Your task to perform on an android device: Open Youtube and go to the subscriptions tab Image 0: 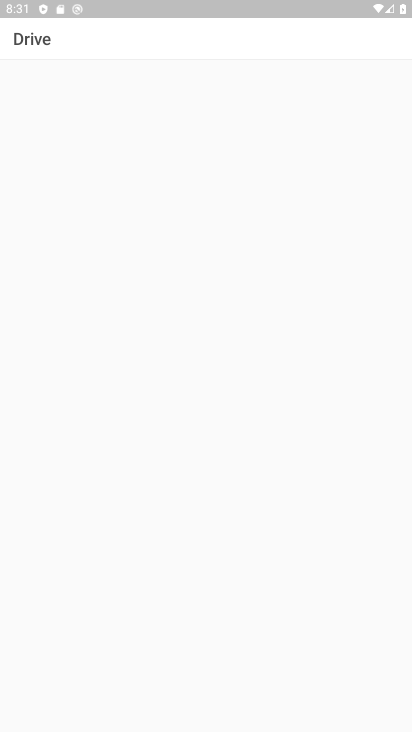
Step 0: press home button
Your task to perform on an android device: Open Youtube and go to the subscriptions tab Image 1: 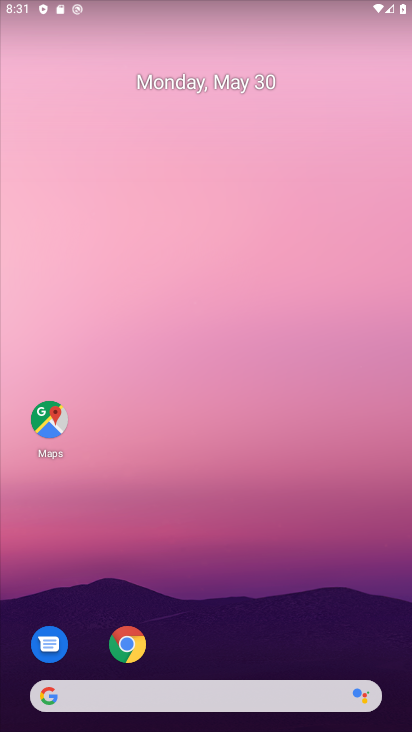
Step 1: drag from (386, 658) to (336, 85)
Your task to perform on an android device: Open Youtube and go to the subscriptions tab Image 2: 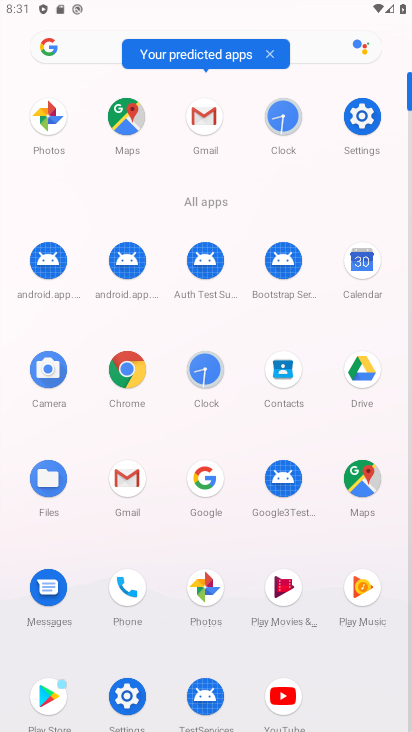
Step 2: click (282, 696)
Your task to perform on an android device: Open Youtube and go to the subscriptions tab Image 3: 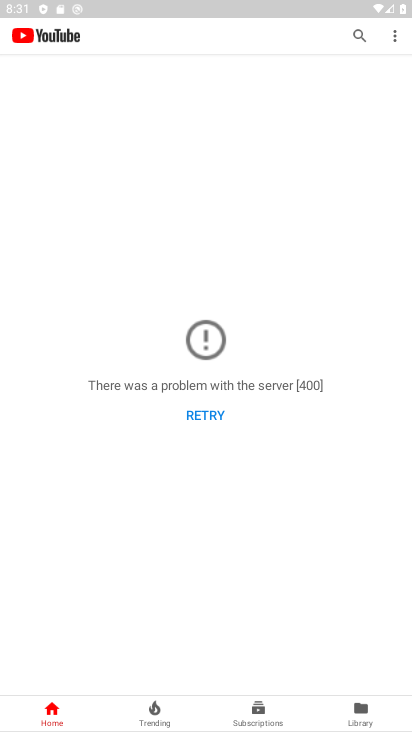
Step 3: click (269, 713)
Your task to perform on an android device: Open Youtube and go to the subscriptions tab Image 4: 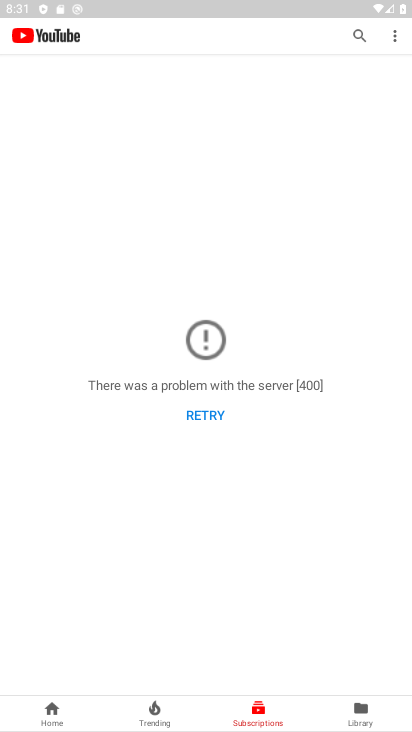
Step 4: click (210, 414)
Your task to perform on an android device: Open Youtube and go to the subscriptions tab Image 5: 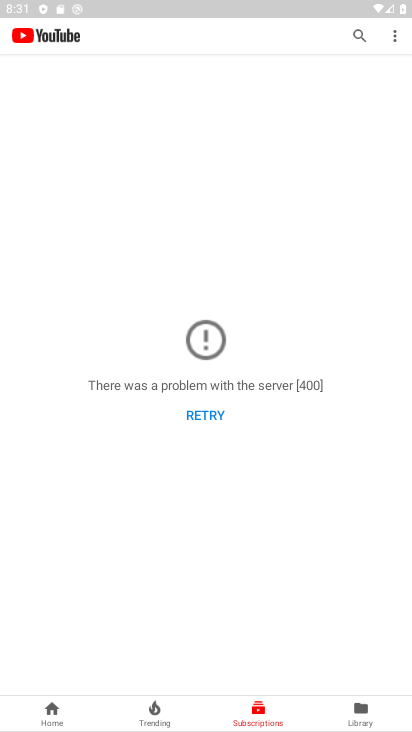
Step 5: click (210, 414)
Your task to perform on an android device: Open Youtube and go to the subscriptions tab Image 6: 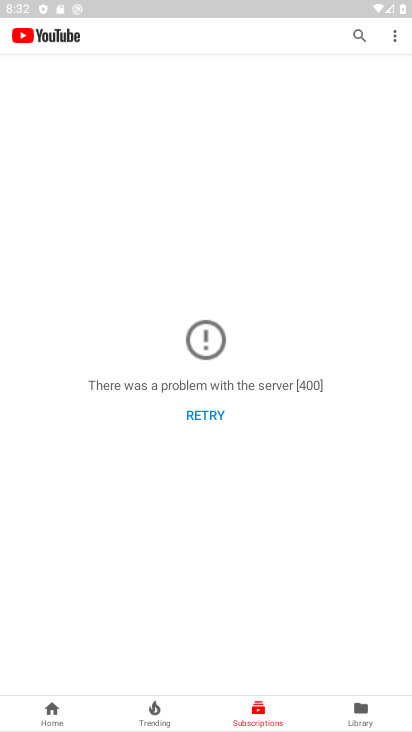
Step 6: task complete